Your task to perform on an android device: Open calendar and show me the third week of next month Image 0: 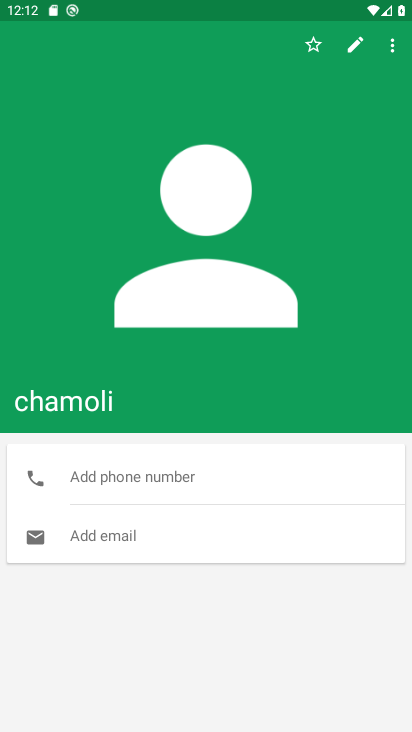
Step 0: press home button
Your task to perform on an android device: Open calendar and show me the third week of next month Image 1: 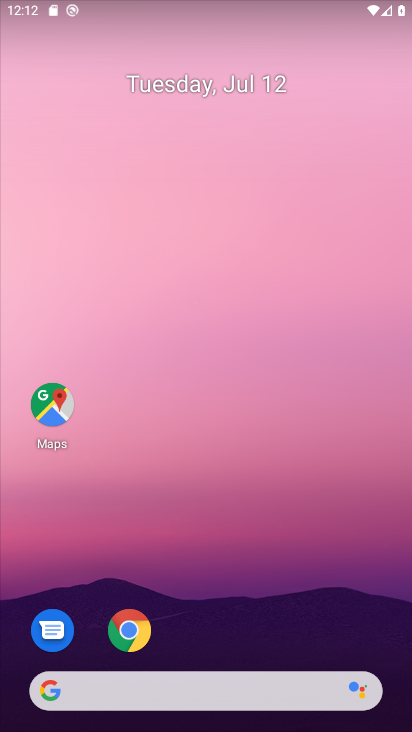
Step 1: drag from (216, 640) to (230, 25)
Your task to perform on an android device: Open calendar and show me the third week of next month Image 2: 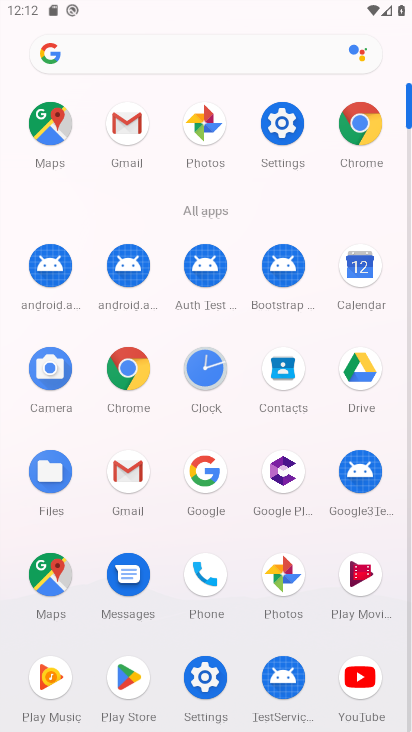
Step 2: click (195, 683)
Your task to perform on an android device: Open calendar and show me the third week of next month Image 3: 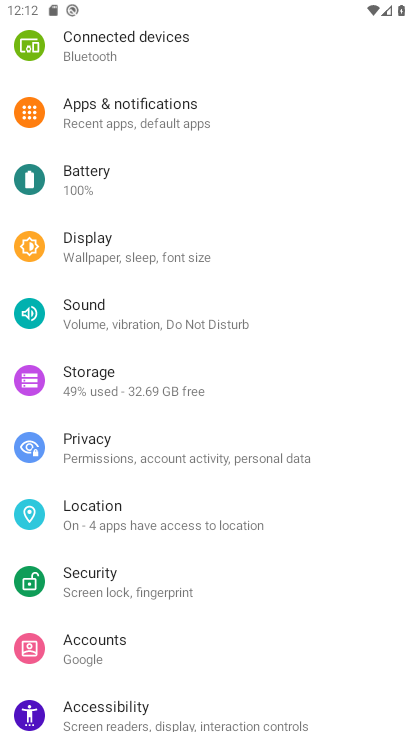
Step 3: click (128, 517)
Your task to perform on an android device: Open calendar and show me the third week of next month Image 4: 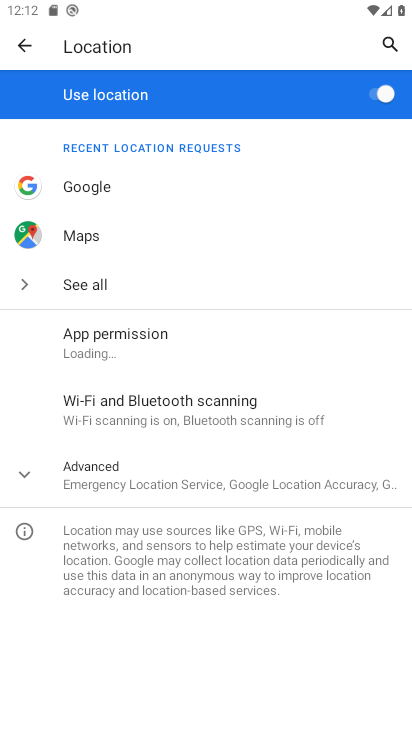
Step 4: click (168, 477)
Your task to perform on an android device: Open calendar and show me the third week of next month Image 5: 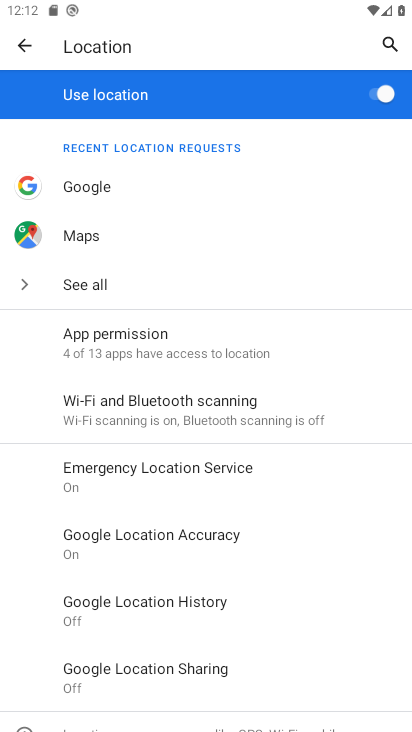
Step 5: press home button
Your task to perform on an android device: Open calendar and show me the third week of next month Image 6: 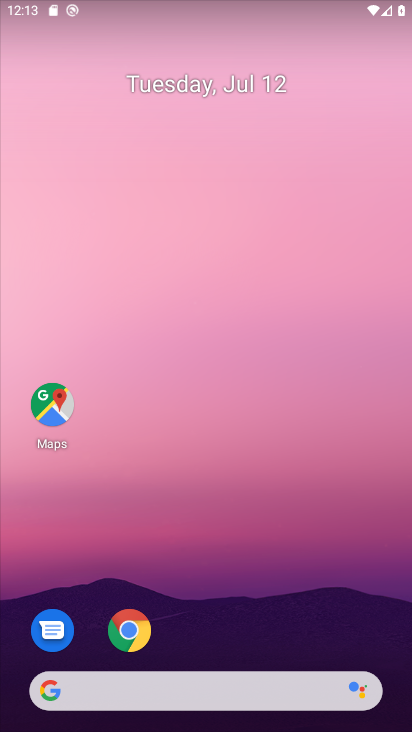
Step 6: drag from (221, 638) to (212, 20)
Your task to perform on an android device: Open calendar and show me the third week of next month Image 7: 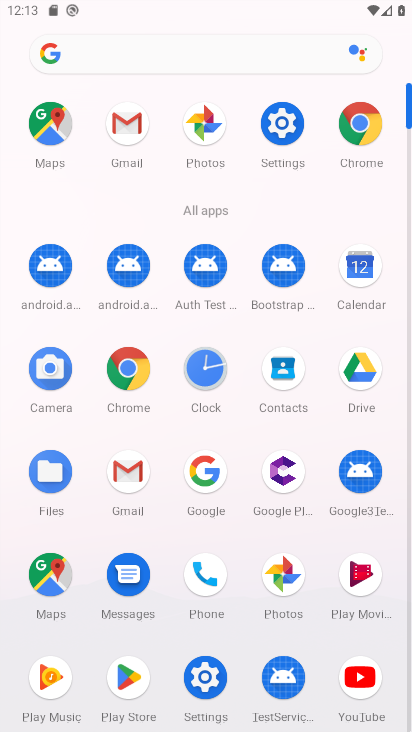
Step 7: click (364, 265)
Your task to perform on an android device: Open calendar and show me the third week of next month Image 8: 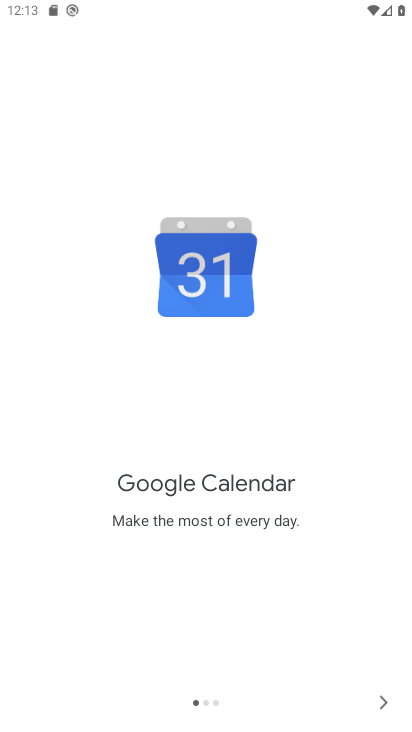
Step 8: click (373, 703)
Your task to perform on an android device: Open calendar and show me the third week of next month Image 9: 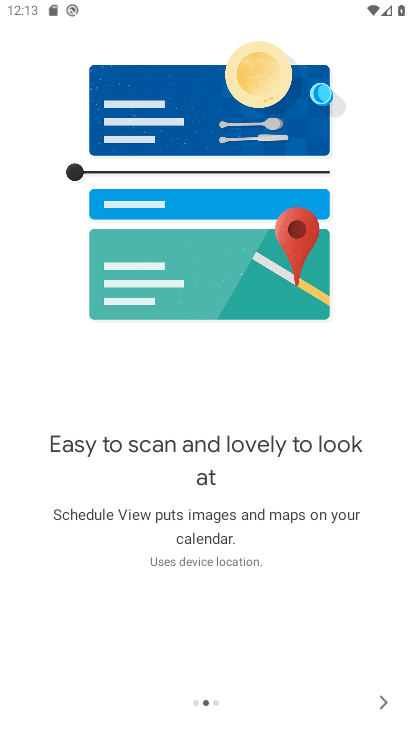
Step 9: click (384, 691)
Your task to perform on an android device: Open calendar and show me the third week of next month Image 10: 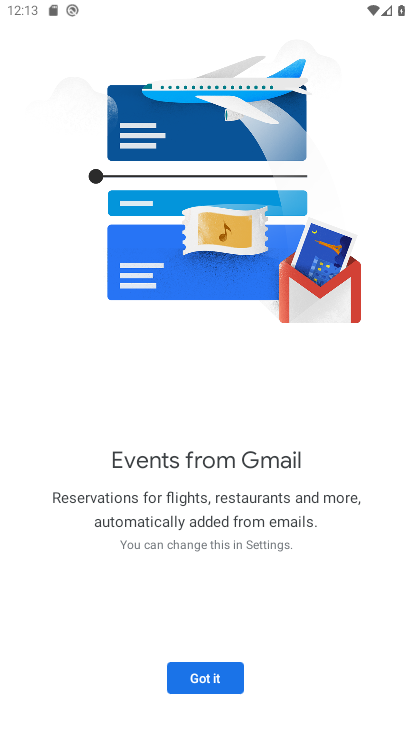
Step 10: click (197, 673)
Your task to perform on an android device: Open calendar and show me the third week of next month Image 11: 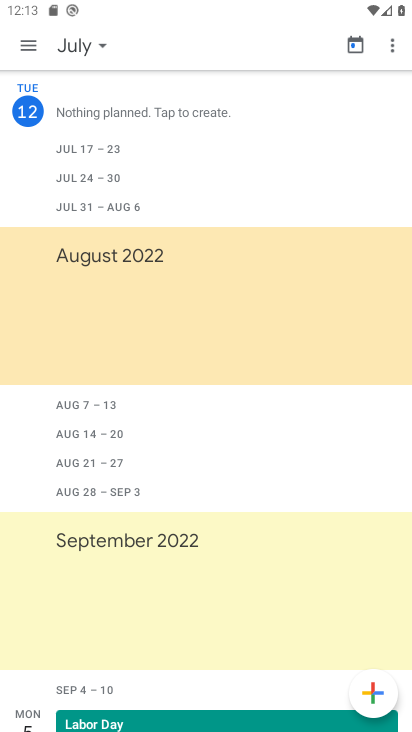
Step 11: click (34, 47)
Your task to perform on an android device: Open calendar and show me the third week of next month Image 12: 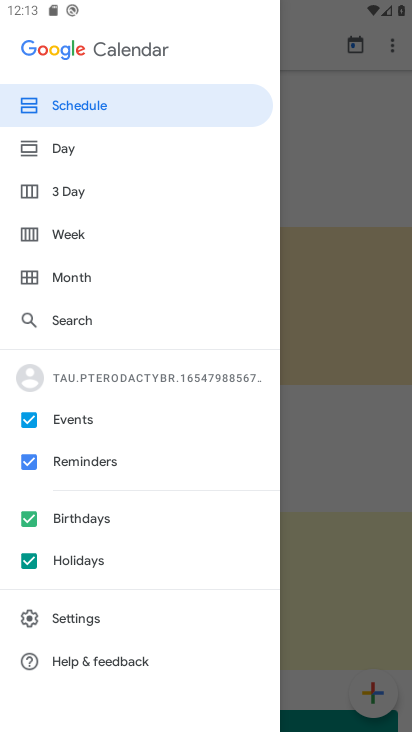
Step 12: click (73, 238)
Your task to perform on an android device: Open calendar and show me the third week of next month Image 13: 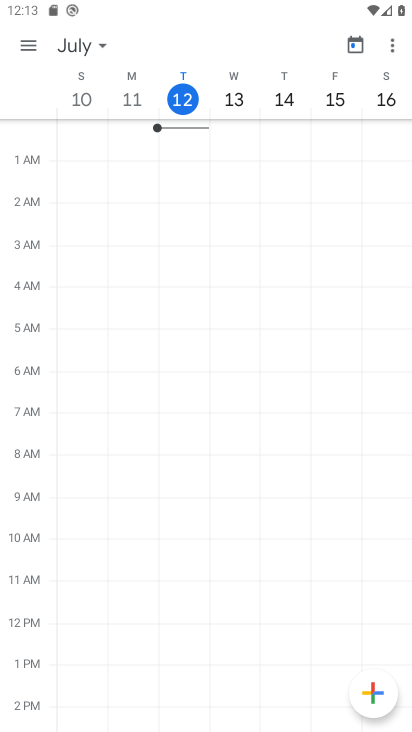
Step 13: task complete